Your task to perform on an android device: allow notifications from all sites in the chrome app Image 0: 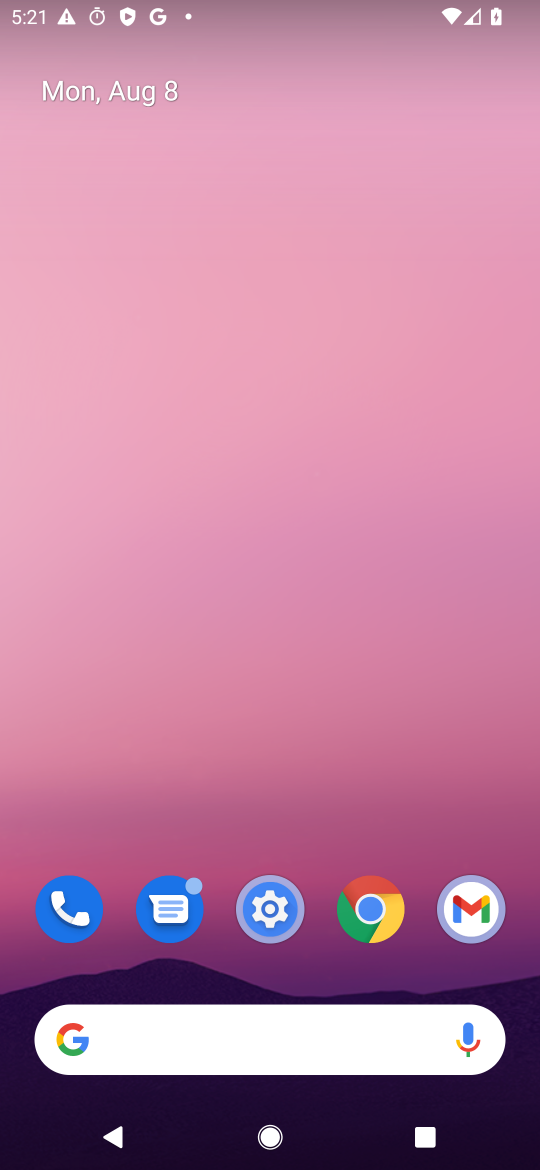
Step 0: click (374, 914)
Your task to perform on an android device: allow notifications from all sites in the chrome app Image 1: 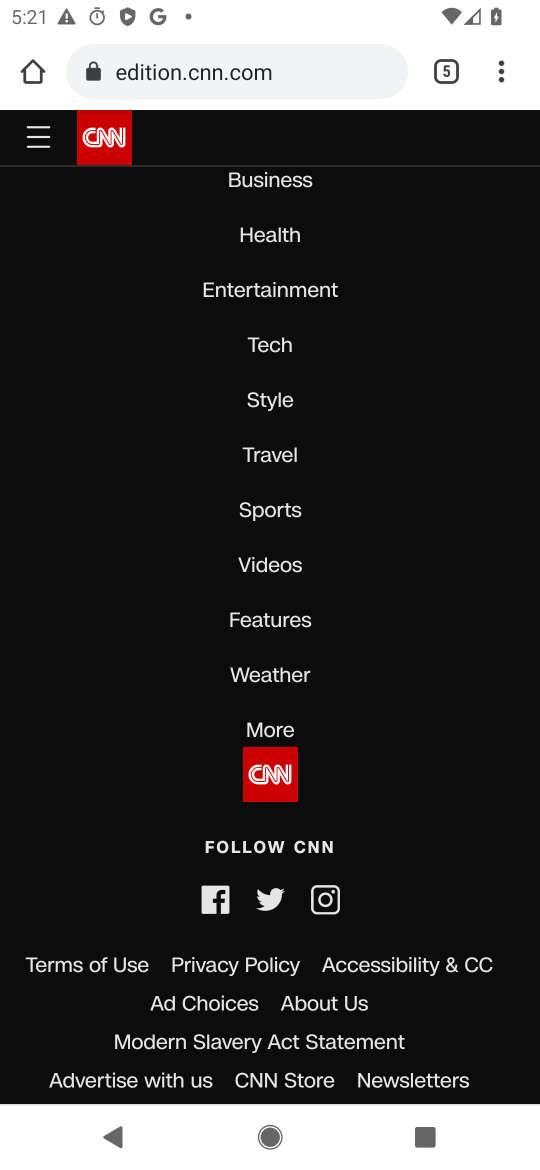
Step 1: drag from (499, 74) to (342, 998)
Your task to perform on an android device: allow notifications from all sites in the chrome app Image 2: 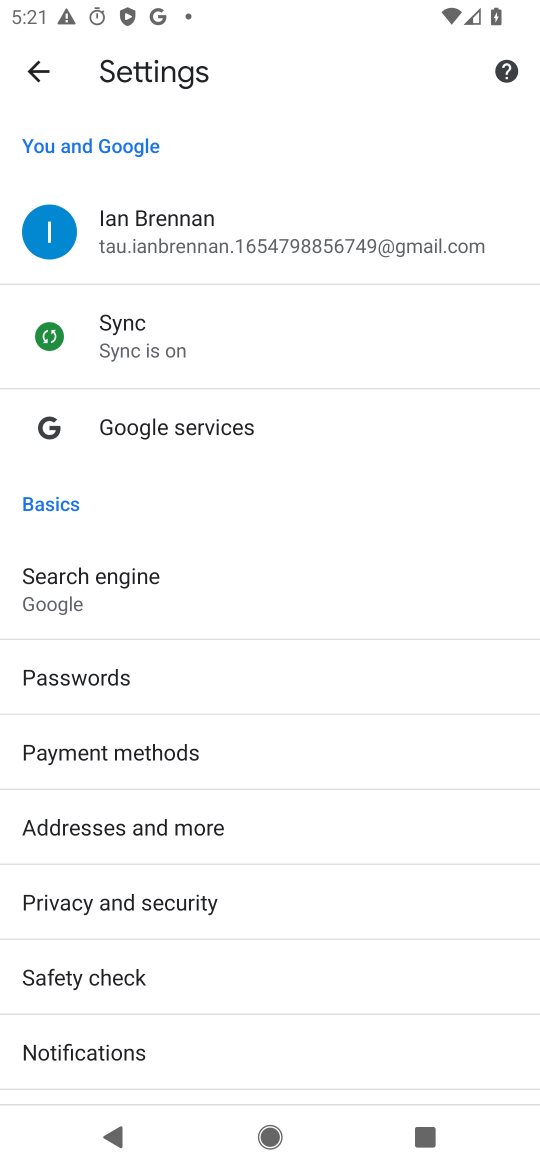
Step 2: drag from (299, 966) to (363, 361)
Your task to perform on an android device: allow notifications from all sites in the chrome app Image 3: 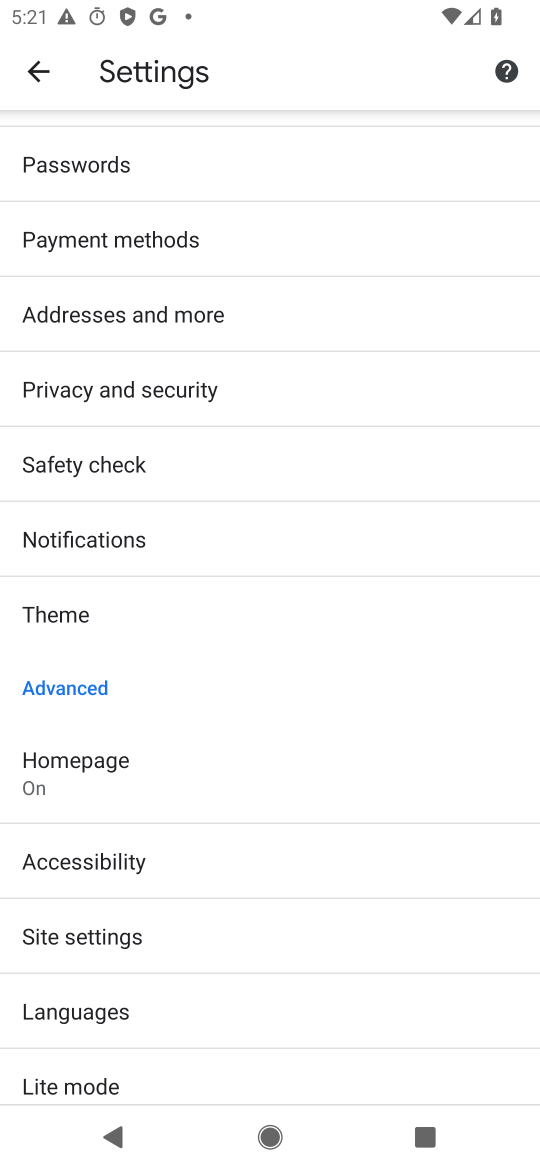
Step 3: click (128, 948)
Your task to perform on an android device: allow notifications from all sites in the chrome app Image 4: 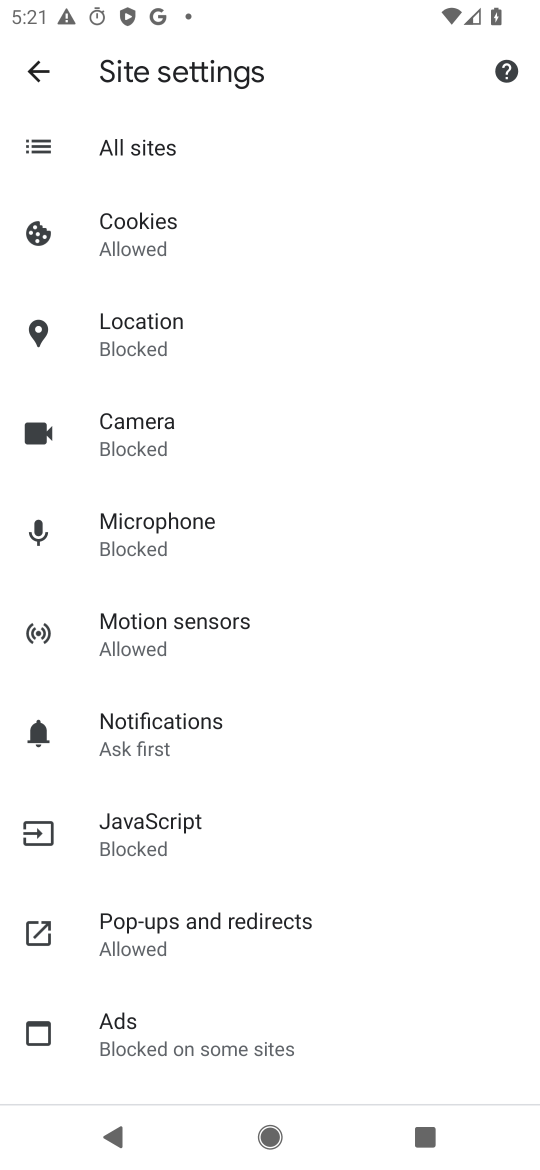
Step 4: click (182, 743)
Your task to perform on an android device: allow notifications from all sites in the chrome app Image 5: 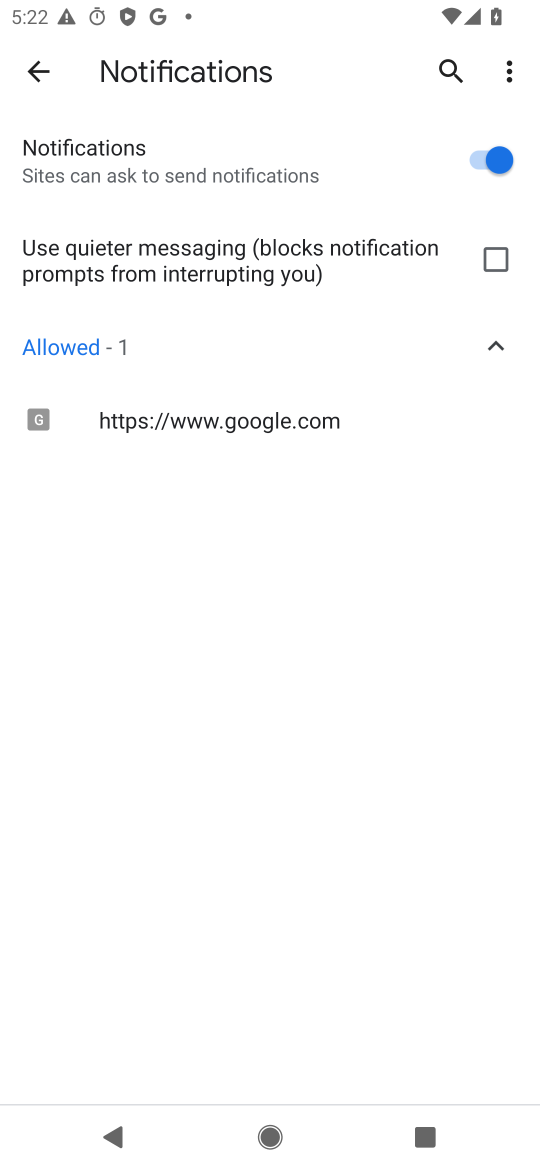
Step 5: task complete